Your task to perform on an android device: Open Wikipedia Image 0: 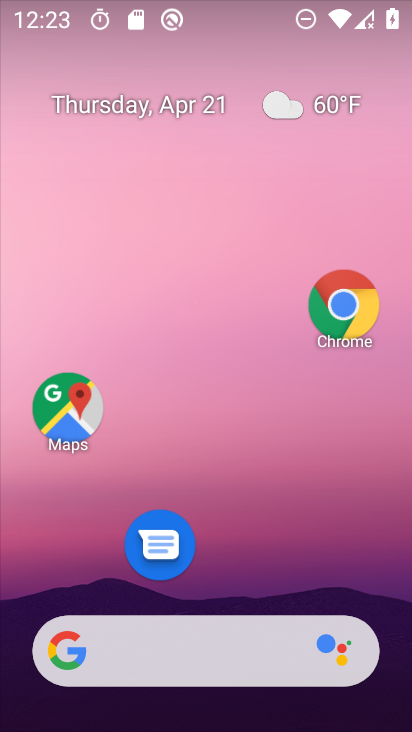
Step 0: drag from (178, 702) to (206, 101)
Your task to perform on an android device: Open Wikipedia Image 1: 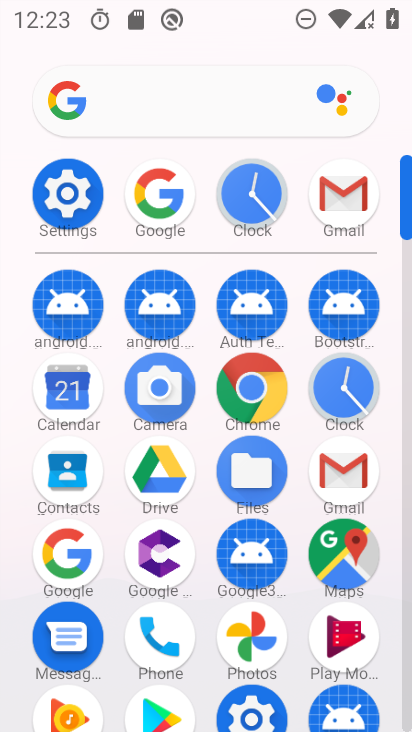
Step 1: click (269, 397)
Your task to perform on an android device: Open Wikipedia Image 2: 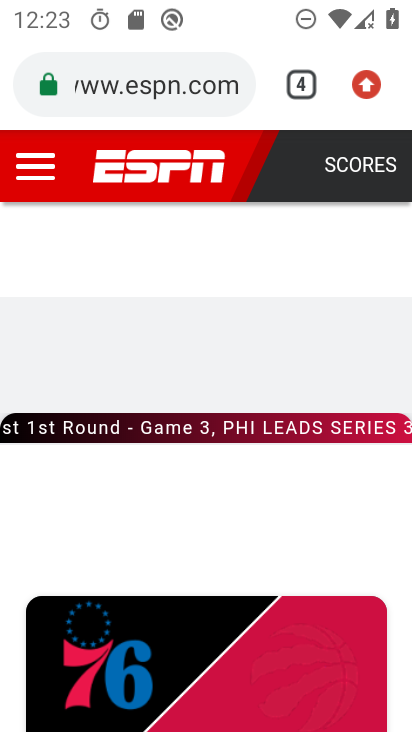
Step 2: drag from (238, 89) to (258, 48)
Your task to perform on an android device: Open Wikipedia Image 3: 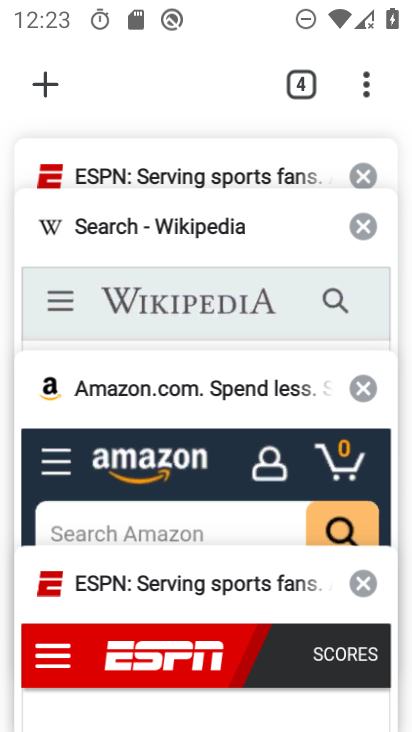
Step 3: click (173, 621)
Your task to perform on an android device: Open Wikipedia Image 4: 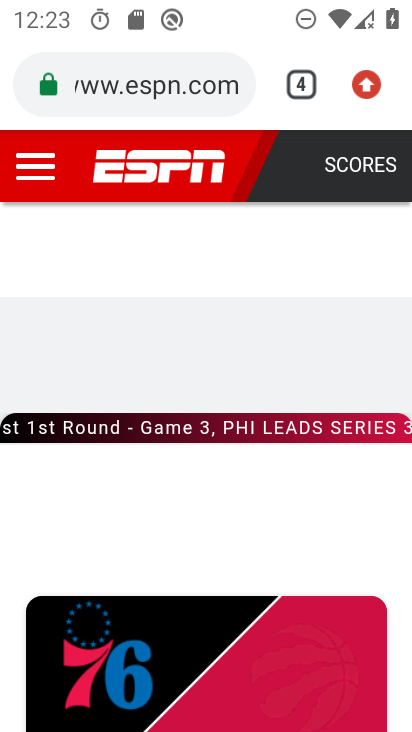
Step 4: click (222, 104)
Your task to perform on an android device: Open Wikipedia Image 5: 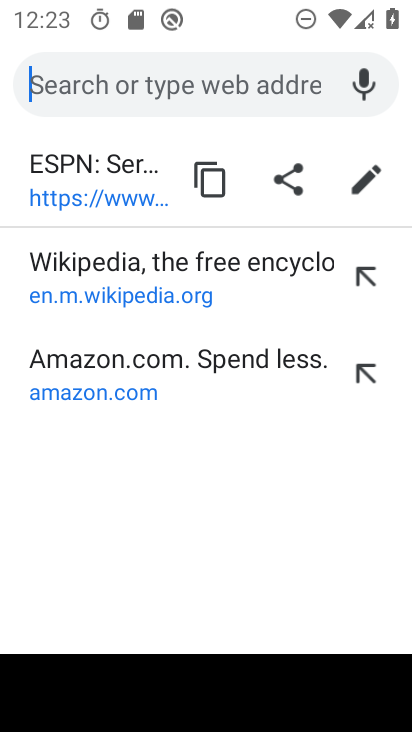
Step 5: click (191, 279)
Your task to perform on an android device: Open Wikipedia Image 6: 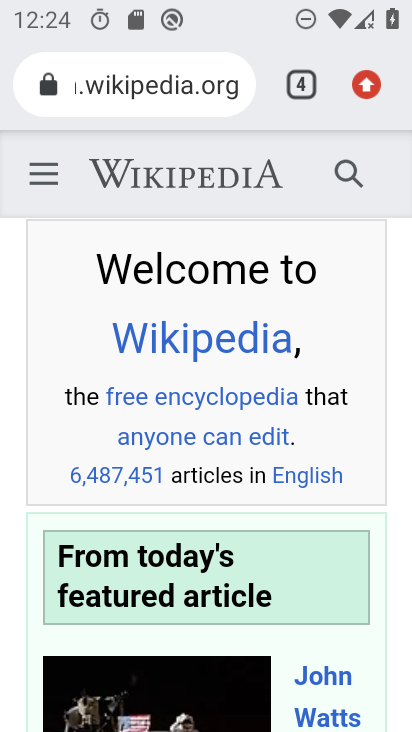
Step 6: task complete